Your task to perform on an android device: change text size in settings app Image 0: 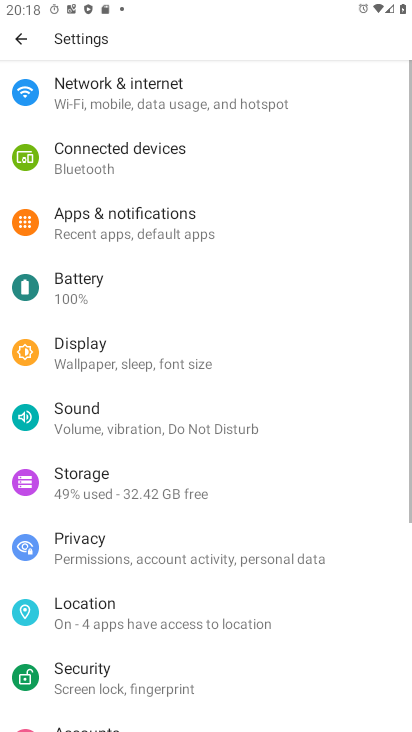
Step 0: press home button
Your task to perform on an android device: change text size in settings app Image 1: 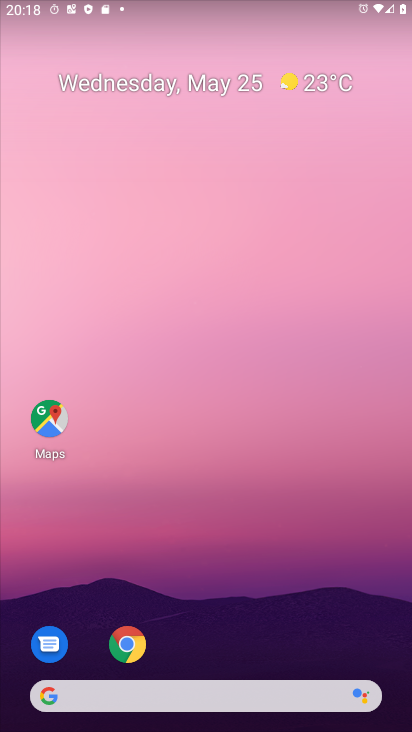
Step 1: drag from (220, 705) to (225, 178)
Your task to perform on an android device: change text size in settings app Image 2: 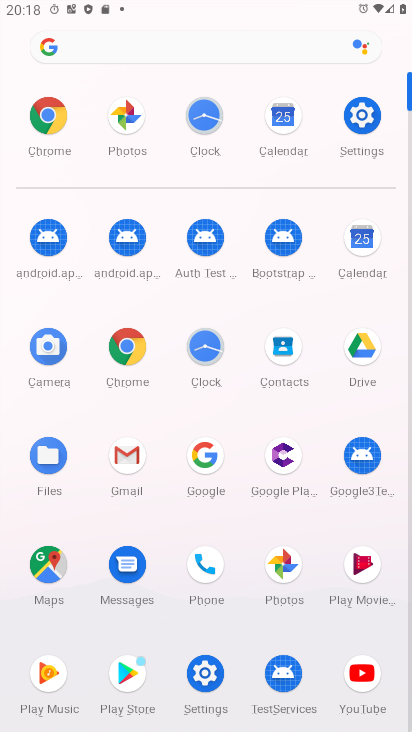
Step 2: click (368, 126)
Your task to perform on an android device: change text size in settings app Image 3: 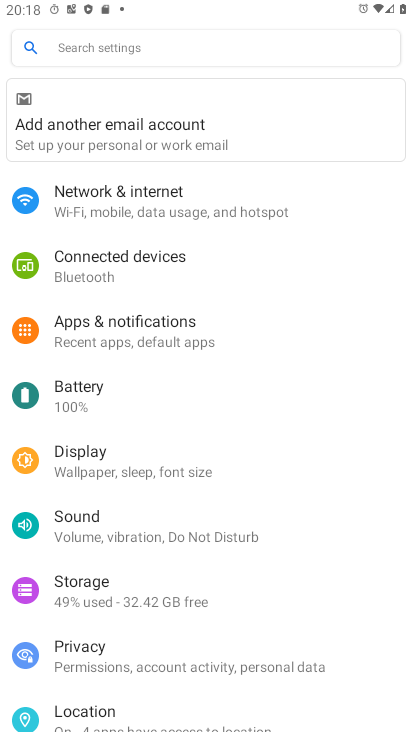
Step 3: click (104, 39)
Your task to perform on an android device: change text size in settings app Image 4: 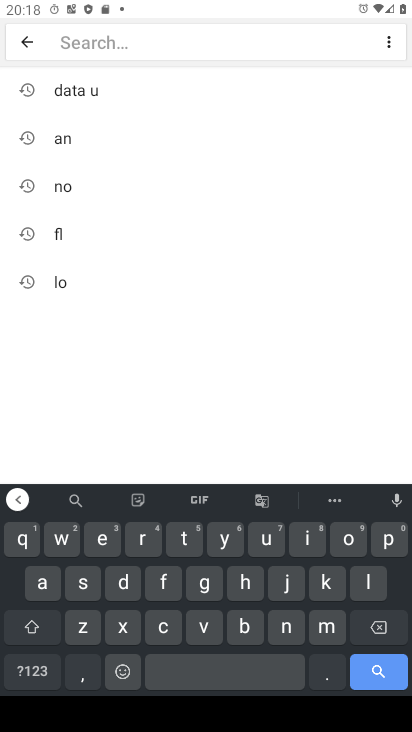
Step 4: click (75, 586)
Your task to perform on an android device: change text size in settings app Image 5: 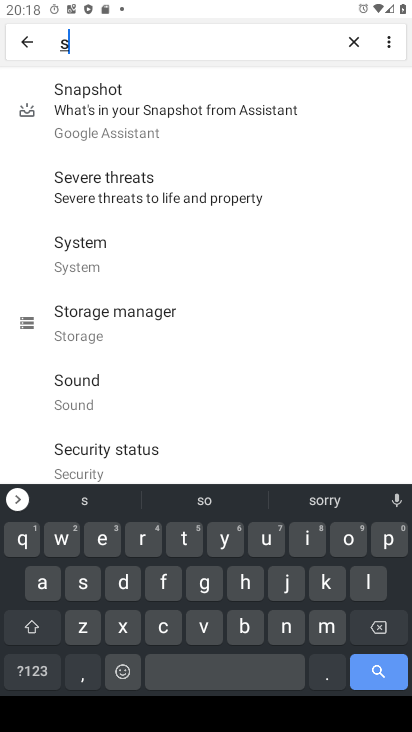
Step 5: click (303, 545)
Your task to perform on an android device: change text size in settings app Image 6: 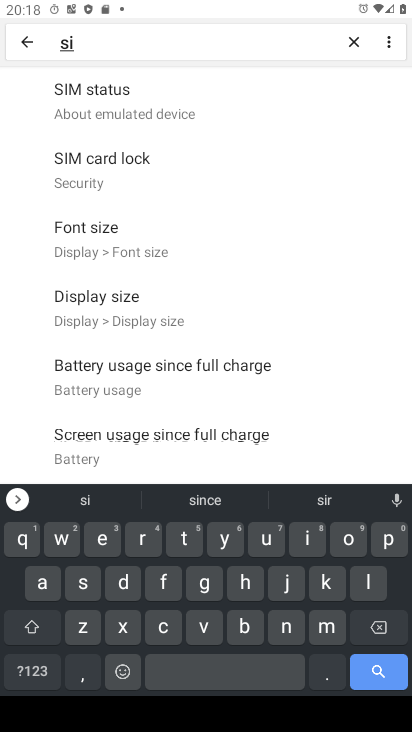
Step 6: click (84, 624)
Your task to perform on an android device: change text size in settings app Image 7: 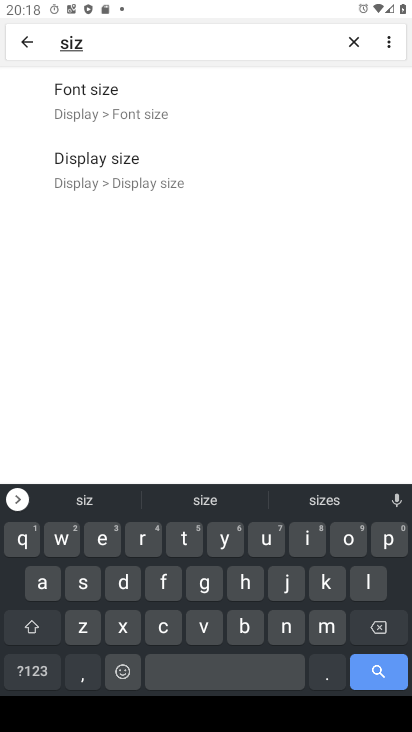
Step 7: click (108, 108)
Your task to perform on an android device: change text size in settings app Image 8: 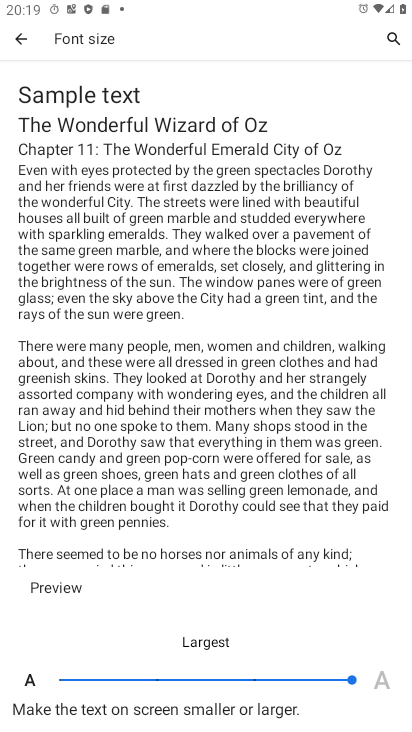
Step 8: task complete